Your task to perform on an android device: open app "The Home Depot" (install if not already installed), go to login, and select forgot password Image 0: 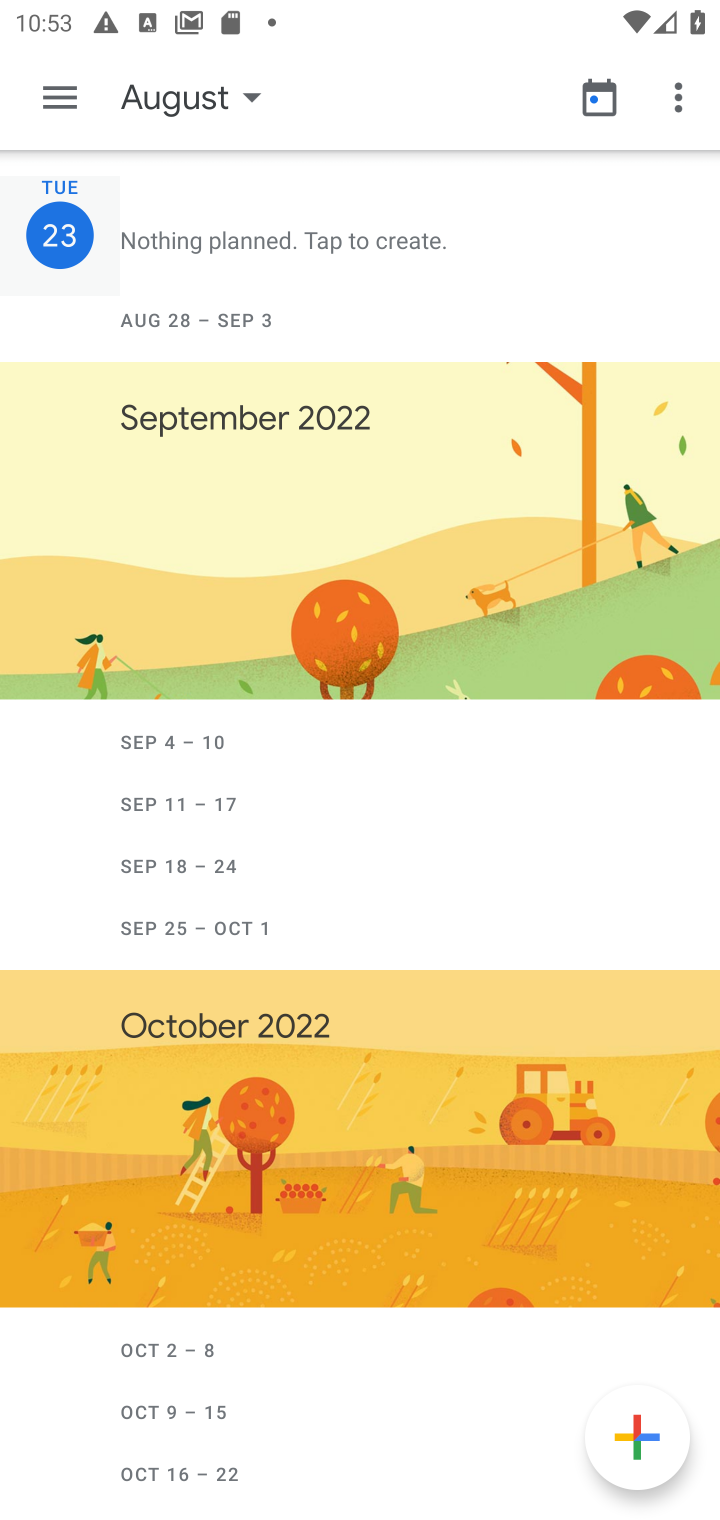
Step 0: press home button
Your task to perform on an android device: open app "The Home Depot" (install if not already installed), go to login, and select forgot password Image 1: 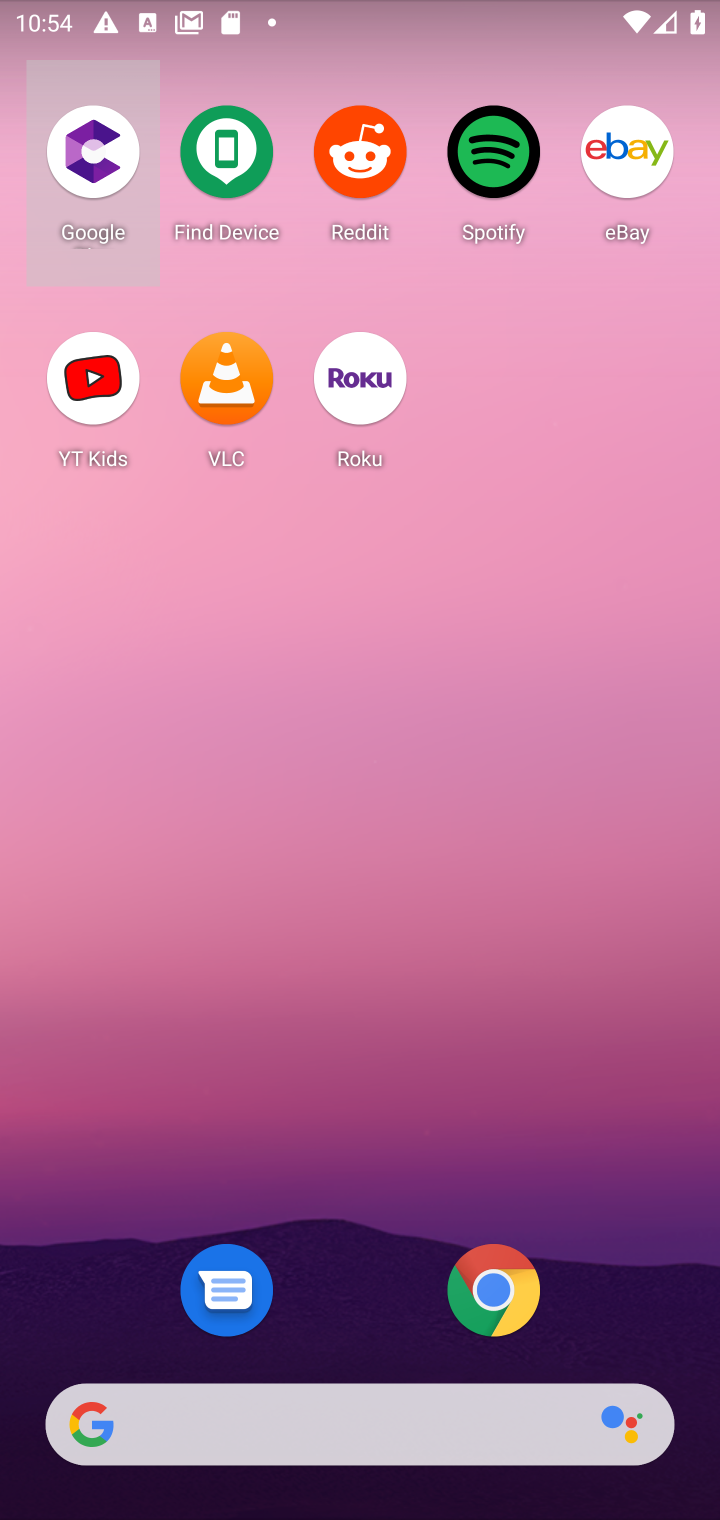
Step 1: drag from (337, 1224) to (337, 72)
Your task to perform on an android device: open app "The Home Depot" (install if not already installed), go to login, and select forgot password Image 2: 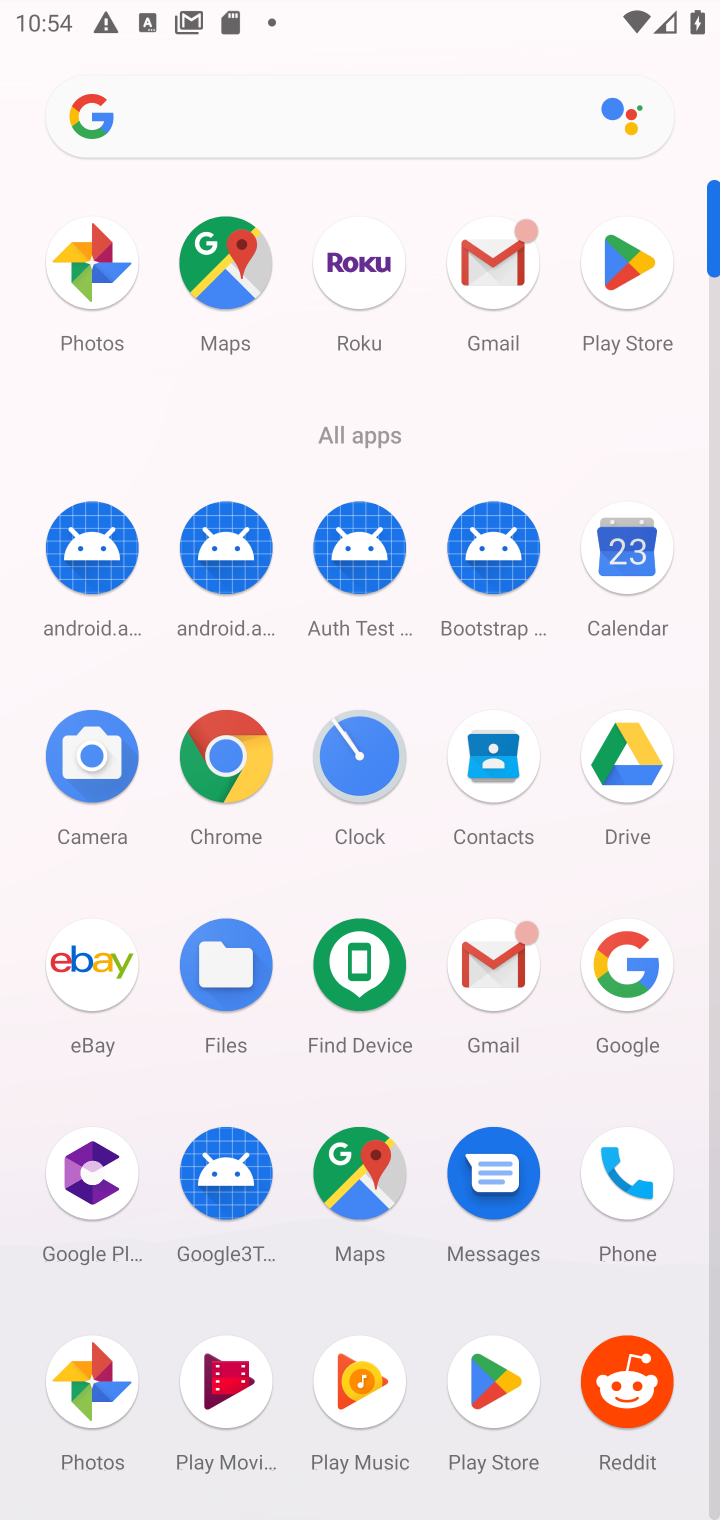
Step 2: click (623, 274)
Your task to perform on an android device: open app "The Home Depot" (install if not already installed), go to login, and select forgot password Image 3: 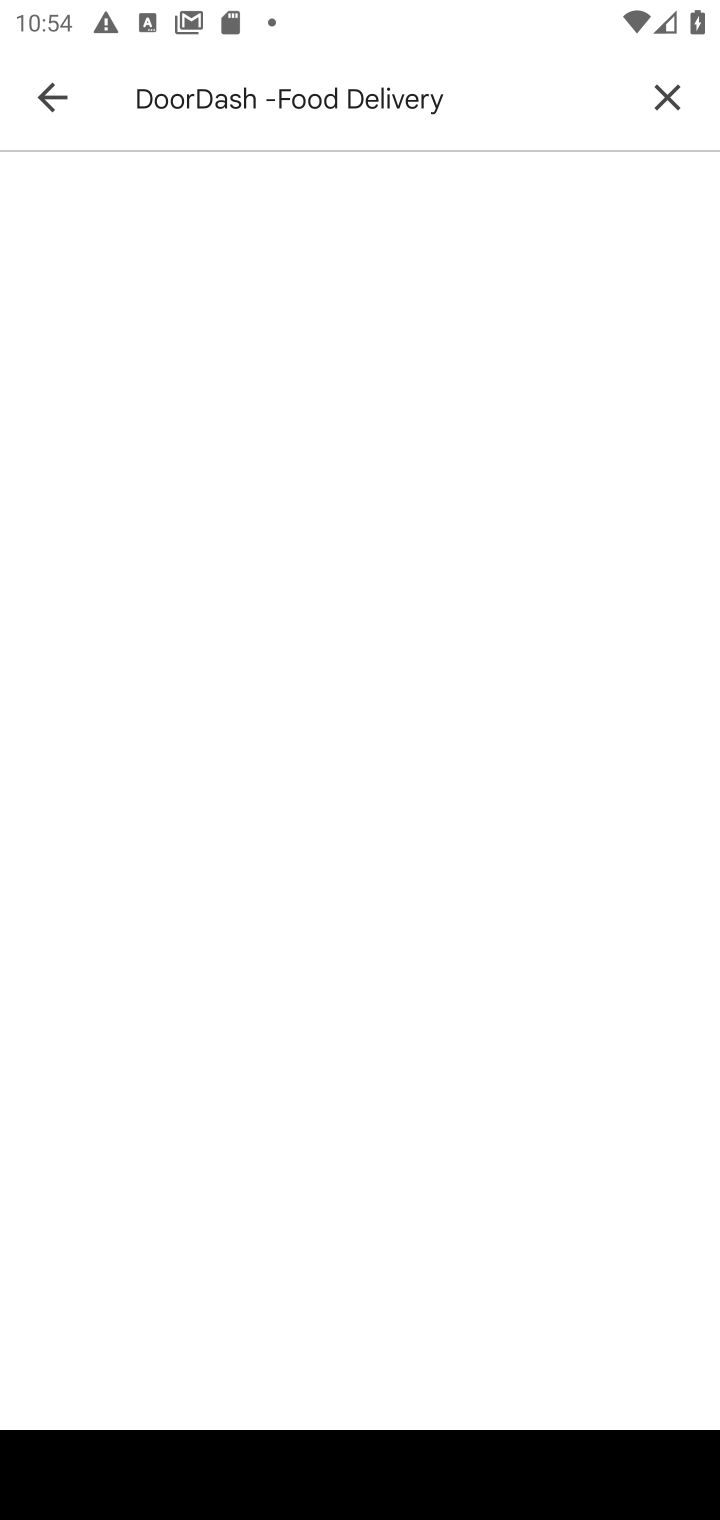
Step 3: click (668, 98)
Your task to perform on an android device: open app "The Home Depot" (install if not already installed), go to login, and select forgot password Image 4: 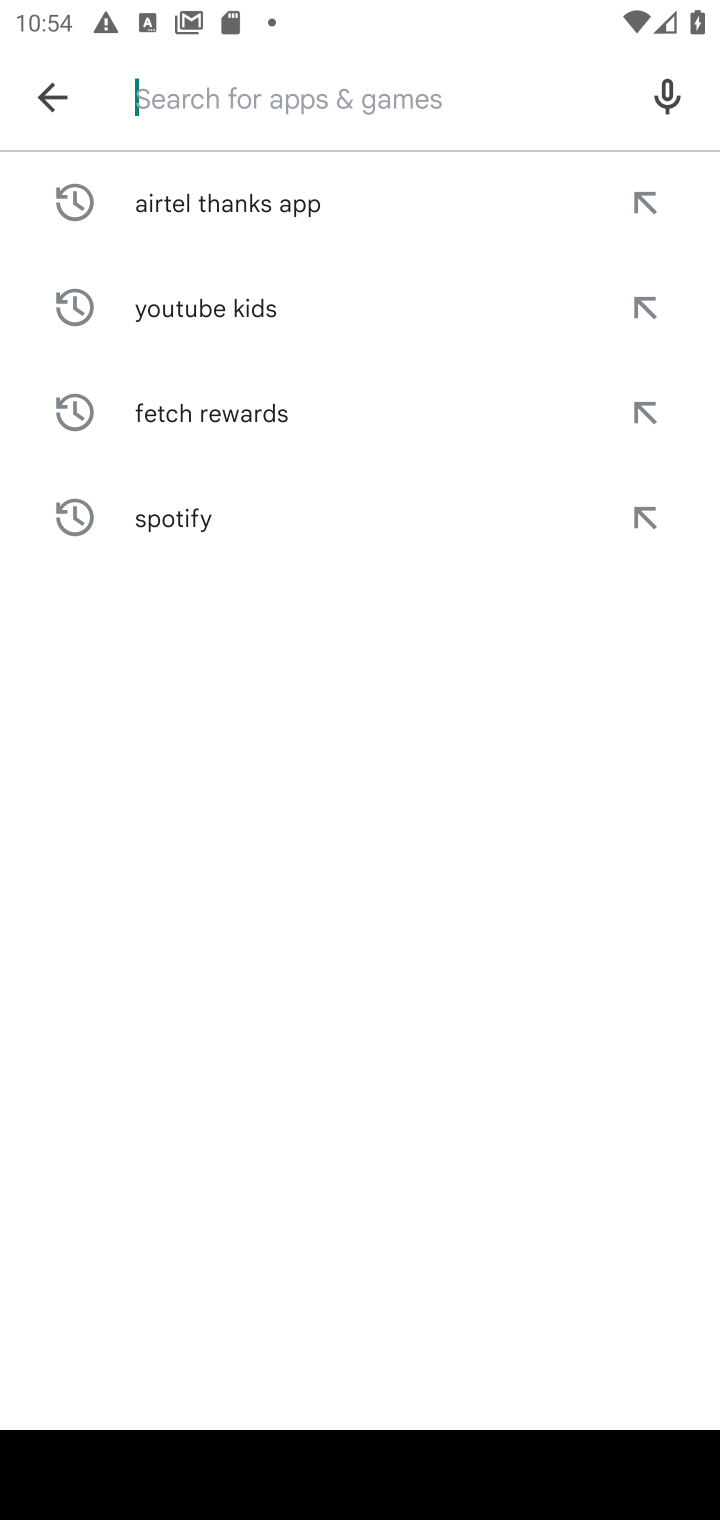
Step 4: type "The Home Depot"
Your task to perform on an android device: open app "The Home Depot" (install if not already installed), go to login, and select forgot password Image 5: 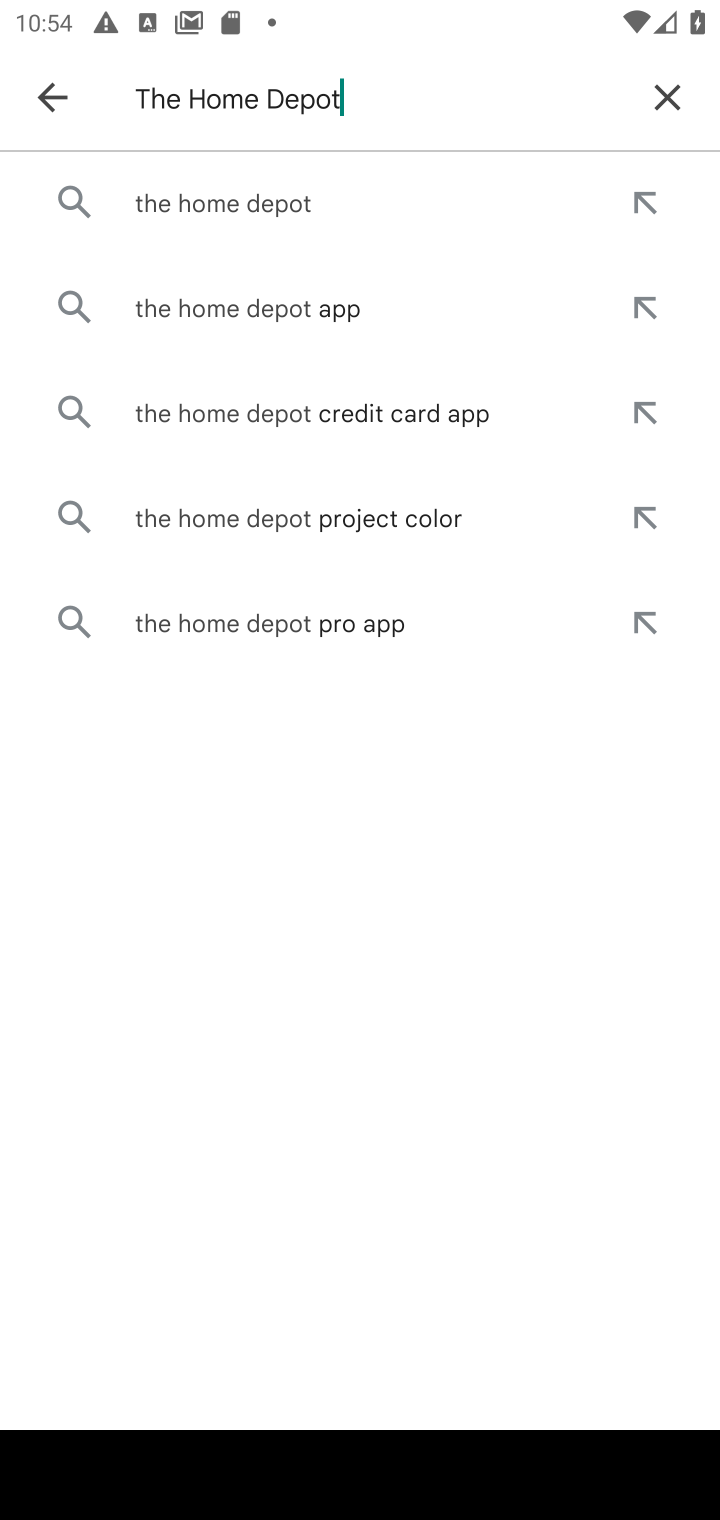
Step 5: click (253, 199)
Your task to perform on an android device: open app "The Home Depot" (install if not already installed), go to login, and select forgot password Image 6: 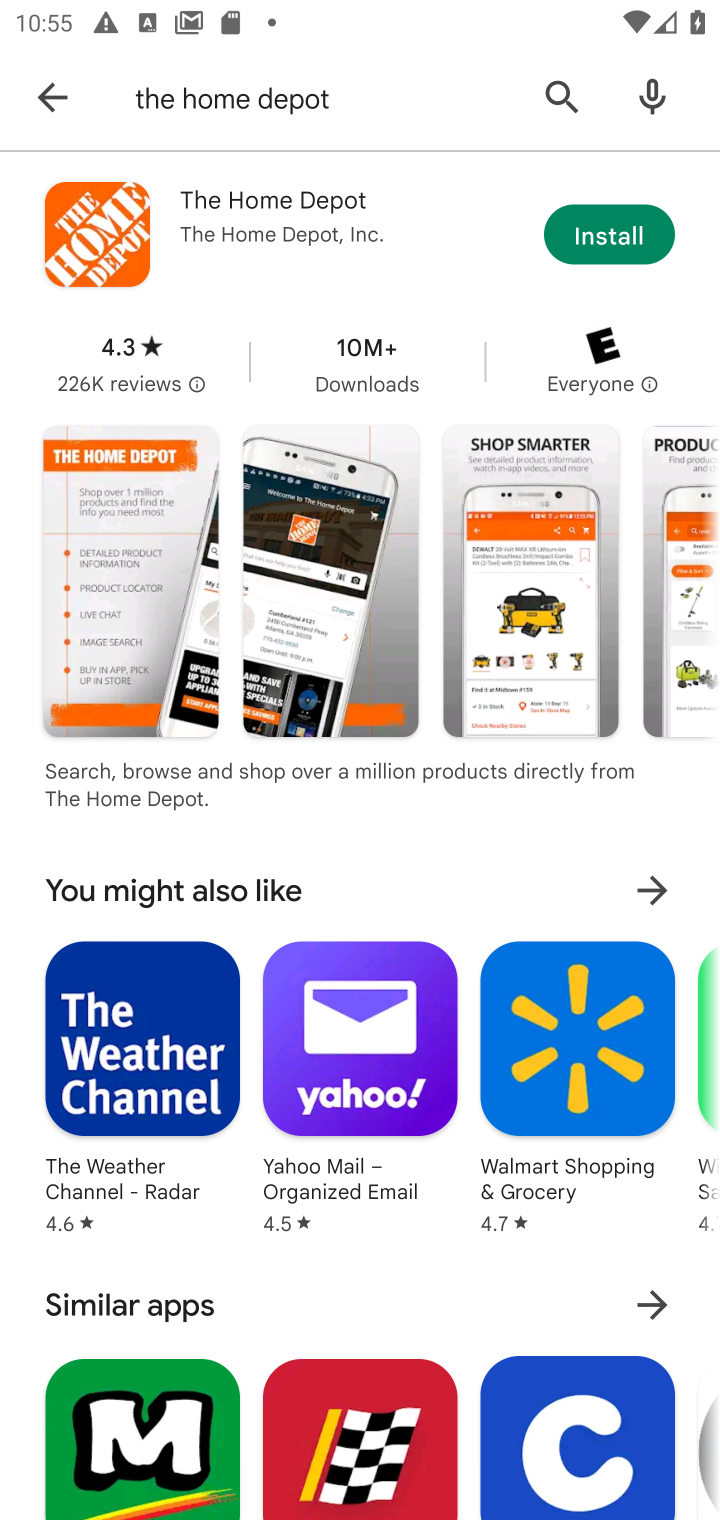
Step 6: click (602, 231)
Your task to perform on an android device: open app "The Home Depot" (install if not already installed), go to login, and select forgot password Image 7: 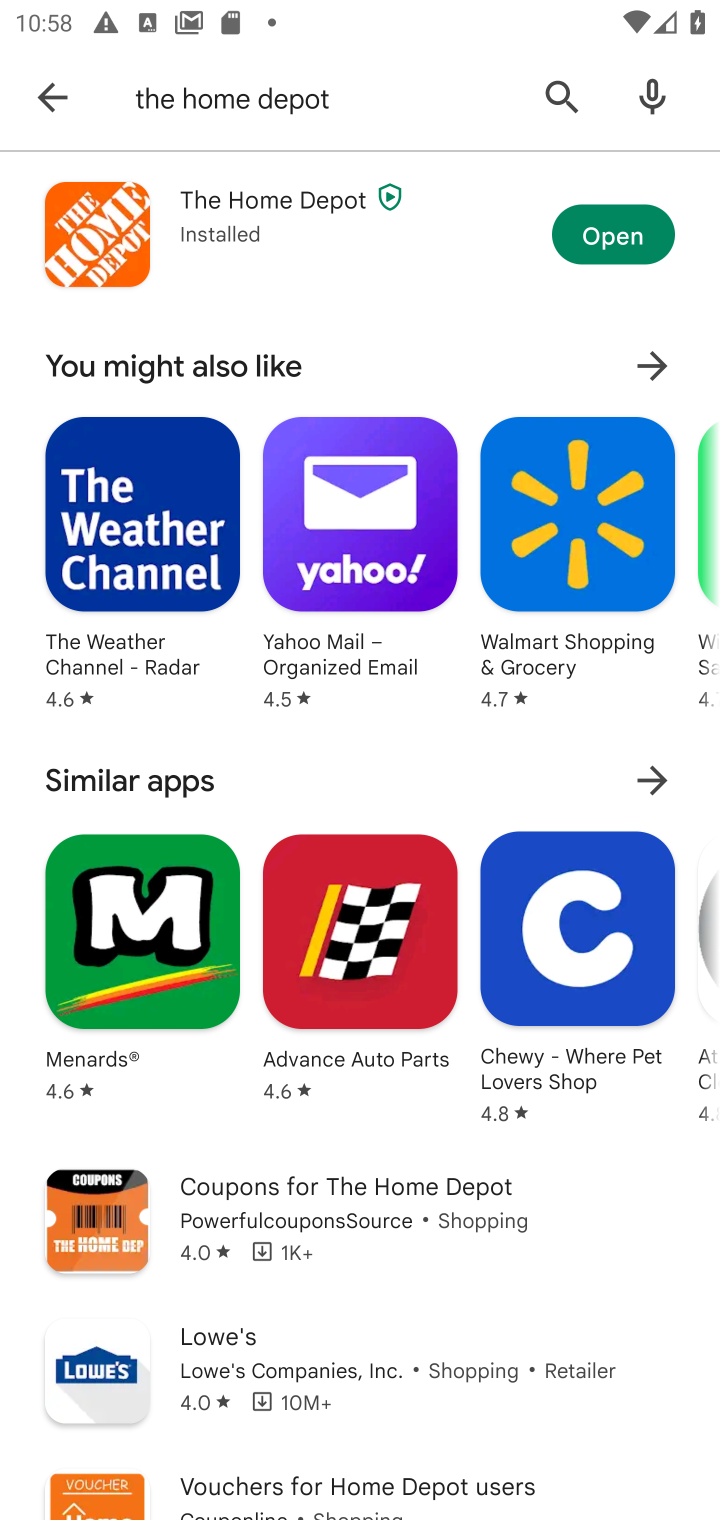
Step 7: click (595, 238)
Your task to perform on an android device: open app "The Home Depot" (install if not already installed), go to login, and select forgot password Image 8: 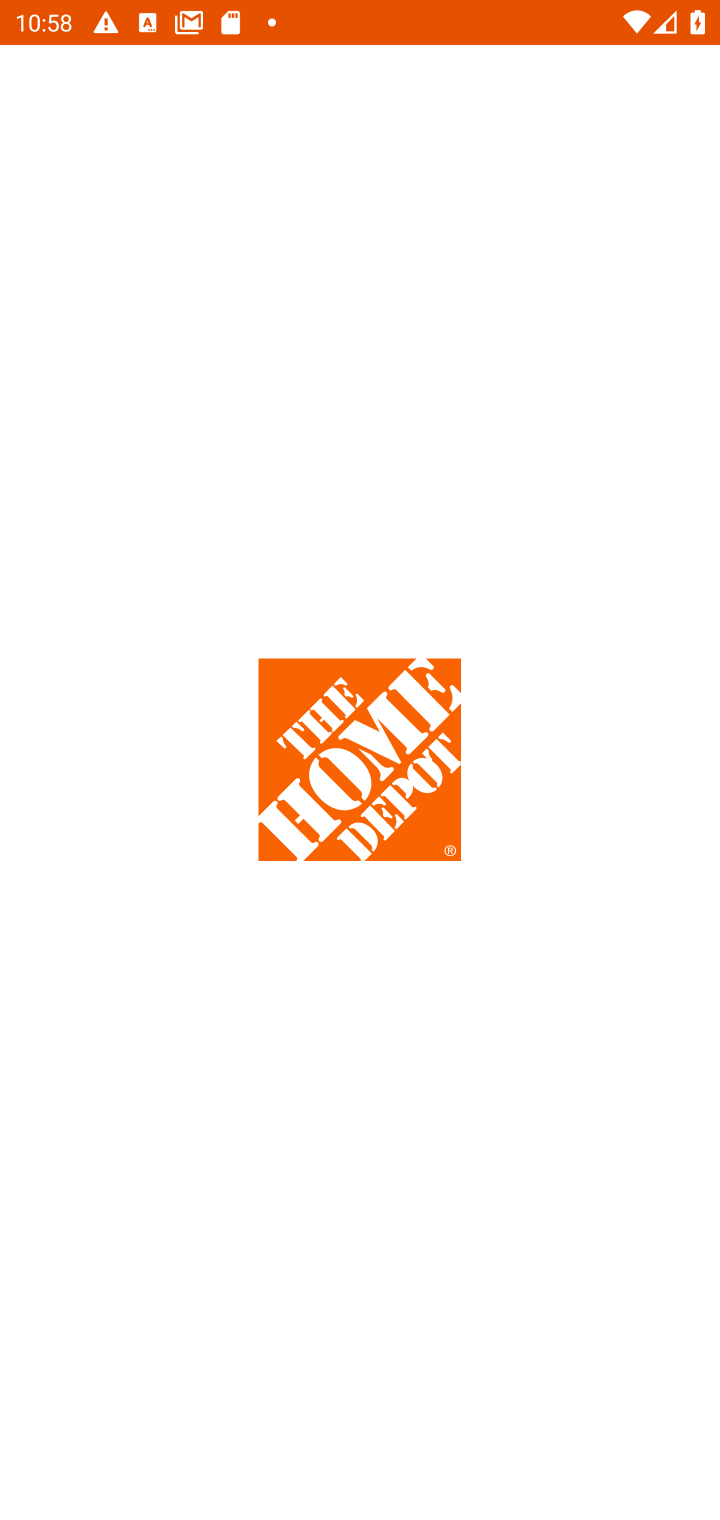
Step 8: task complete